Your task to perform on an android device: Open calendar and show me the second week of next month Image 0: 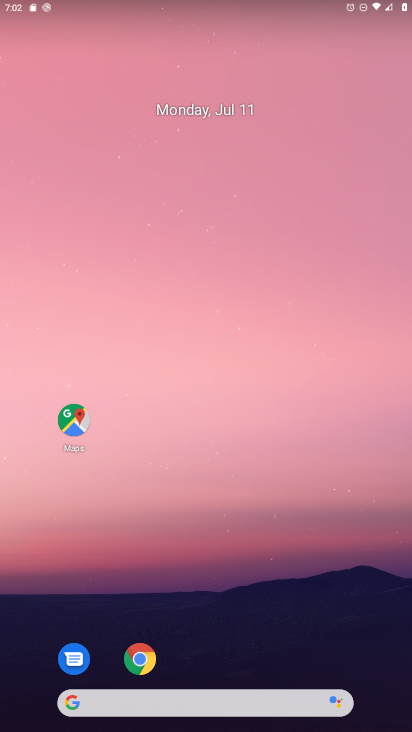
Step 0: drag from (364, 639) to (350, 128)
Your task to perform on an android device: Open calendar and show me the second week of next month Image 1: 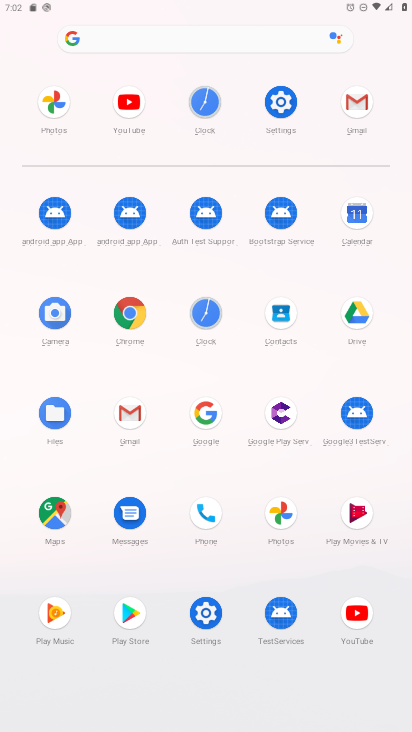
Step 1: click (355, 210)
Your task to perform on an android device: Open calendar and show me the second week of next month Image 2: 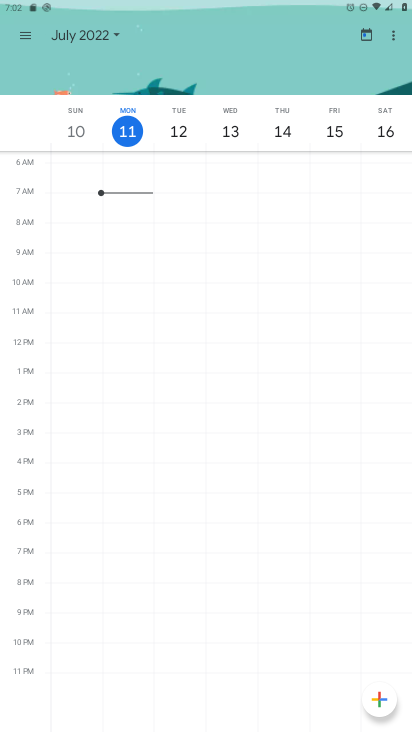
Step 2: click (116, 35)
Your task to perform on an android device: Open calendar and show me the second week of next month Image 3: 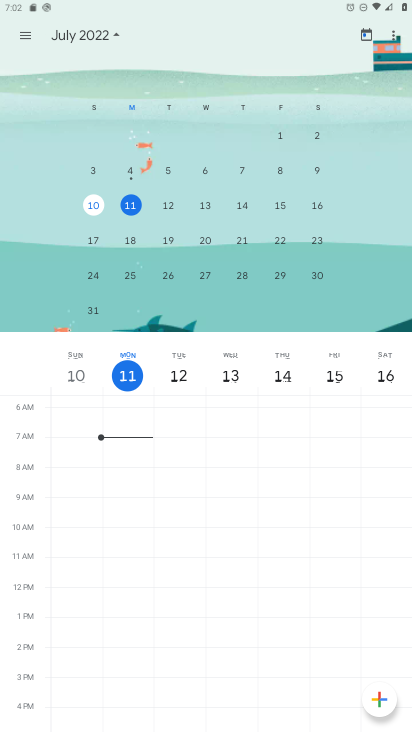
Step 3: drag from (321, 231) to (36, 250)
Your task to perform on an android device: Open calendar and show me the second week of next month Image 4: 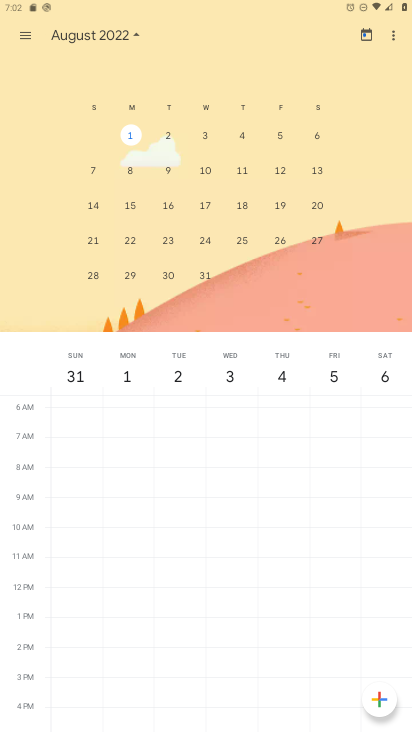
Step 4: click (93, 211)
Your task to perform on an android device: Open calendar and show me the second week of next month Image 5: 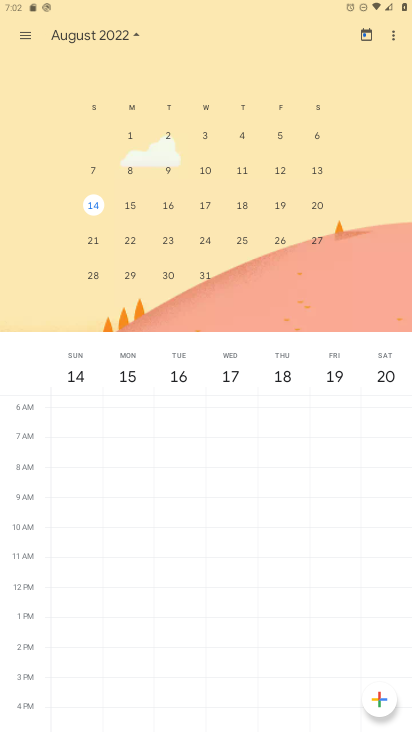
Step 5: task complete